Your task to perform on an android device: Open Google Image 0: 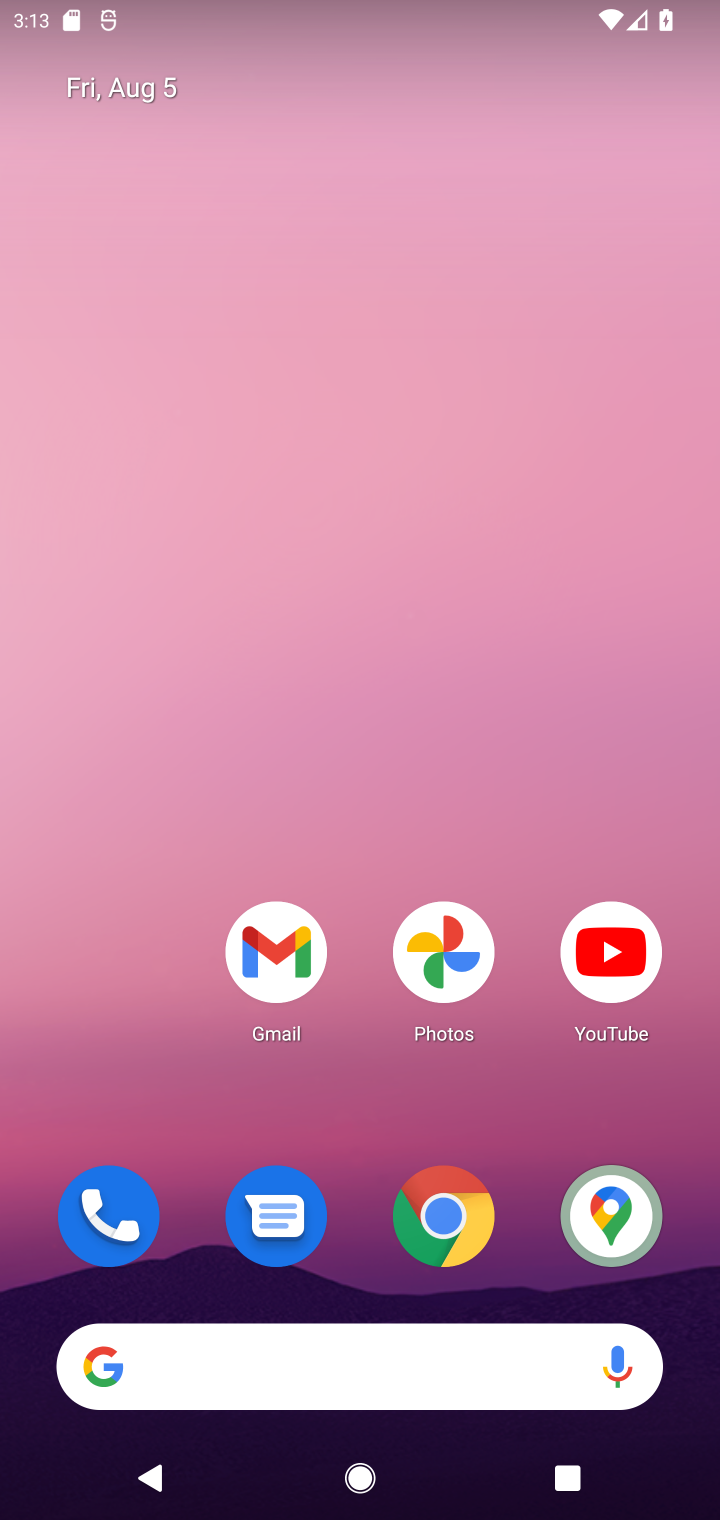
Step 0: click (203, 1352)
Your task to perform on an android device: Open Google Image 1: 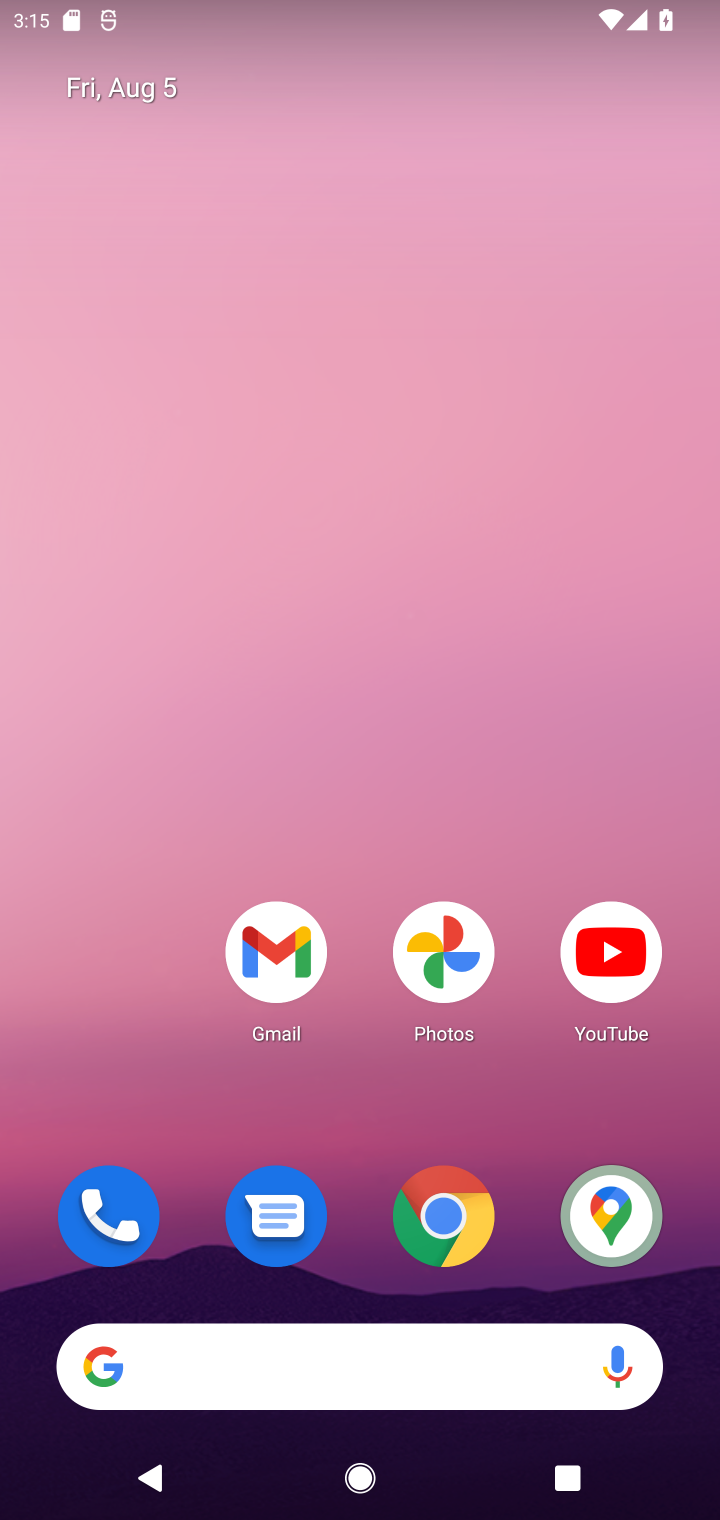
Step 1: click (236, 1379)
Your task to perform on an android device: Open Google Image 2: 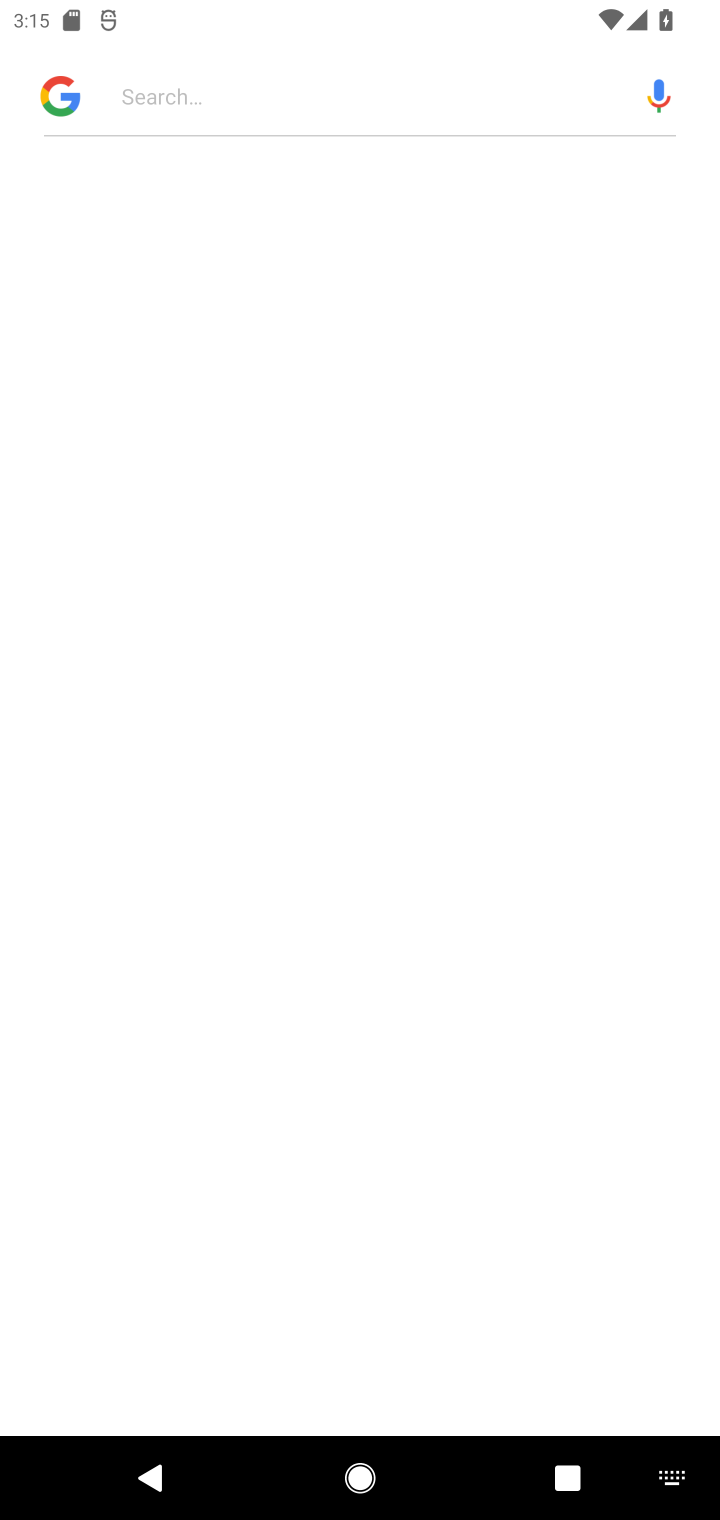
Step 2: task complete